Your task to perform on an android device: Search for seafood restaurants on Google Maps Image 0: 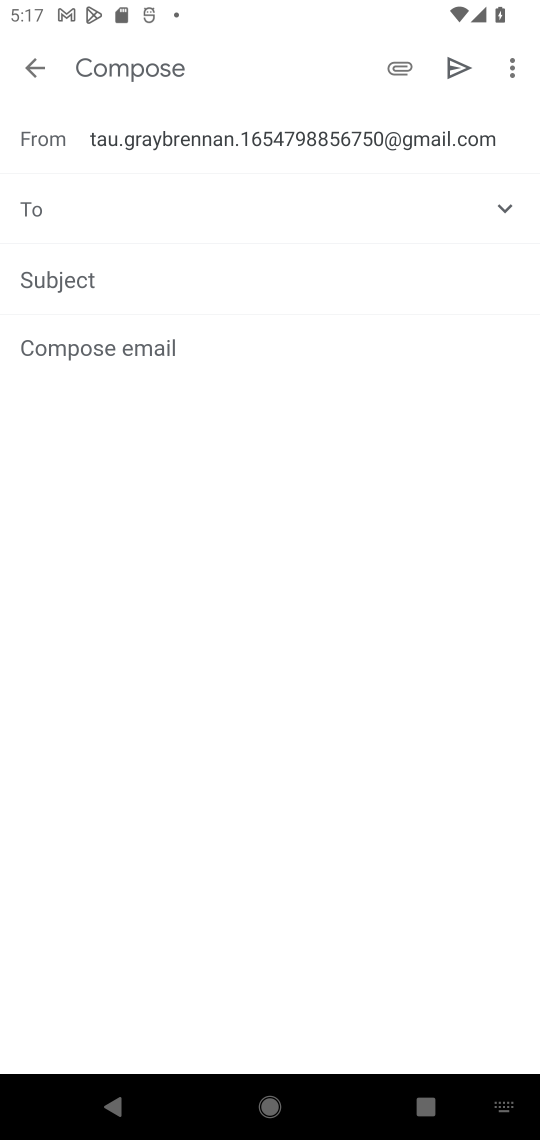
Step 0: press home button
Your task to perform on an android device: Search for seafood restaurants on Google Maps Image 1: 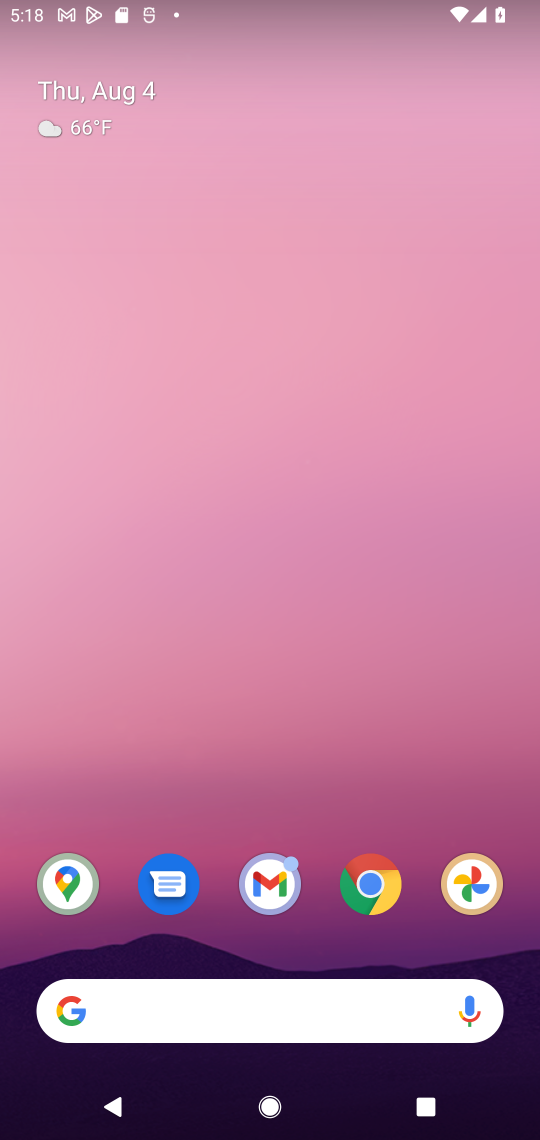
Step 1: click (81, 893)
Your task to perform on an android device: Search for seafood restaurants on Google Maps Image 2: 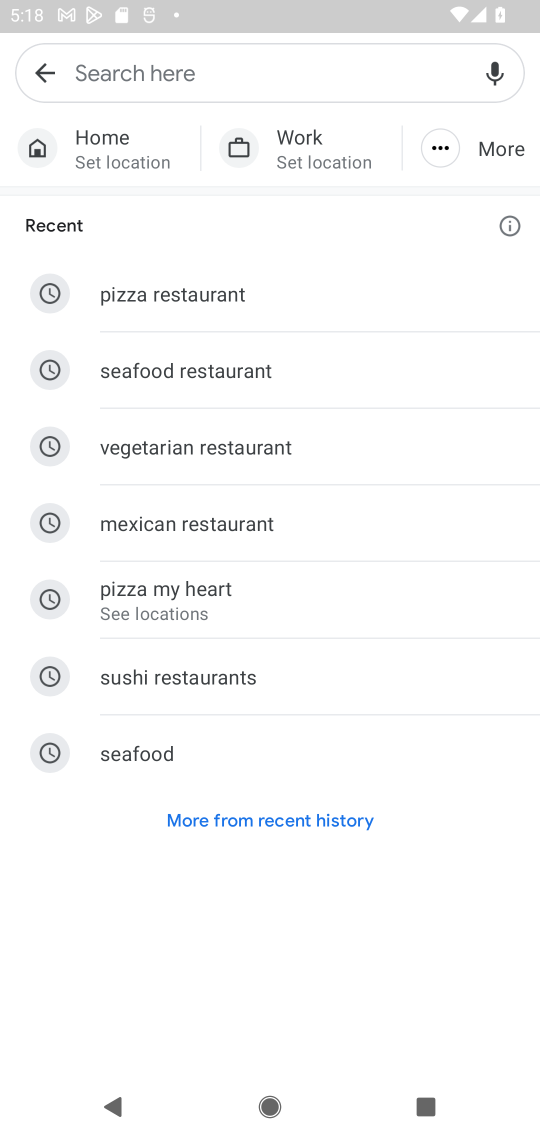
Step 2: click (292, 85)
Your task to perform on an android device: Search for seafood restaurants on Google Maps Image 3: 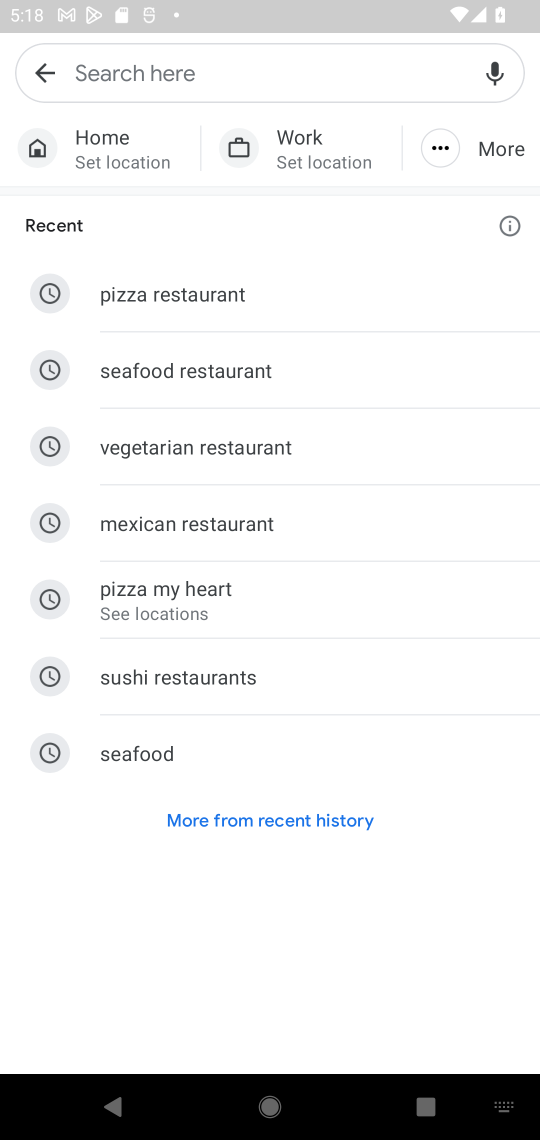
Step 3: click (287, 382)
Your task to perform on an android device: Search for seafood restaurants on Google Maps Image 4: 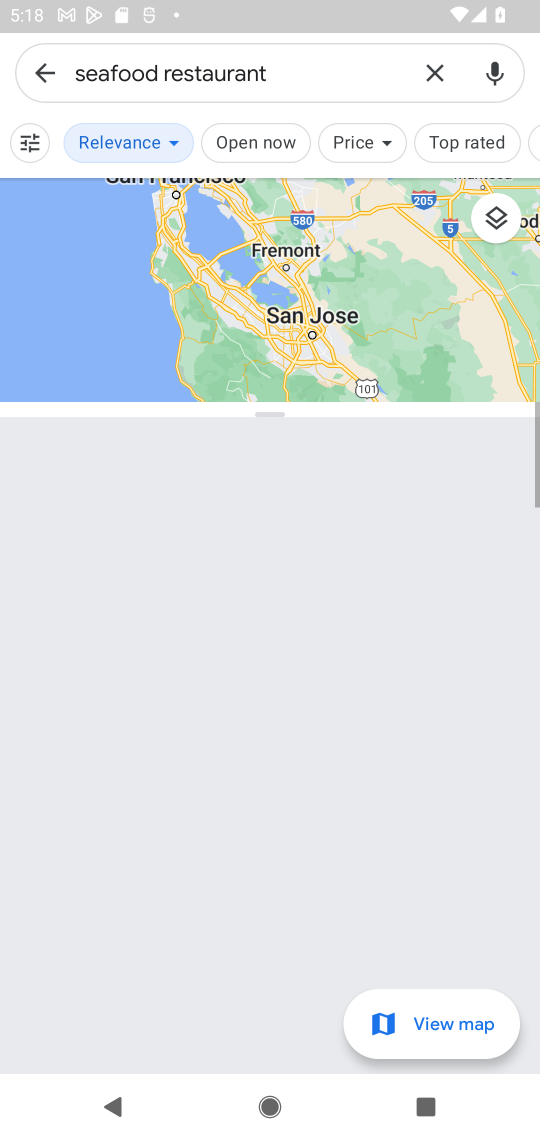
Step 4: task complete